Your task to perform on an android device: turn off airplane mode Image 0: 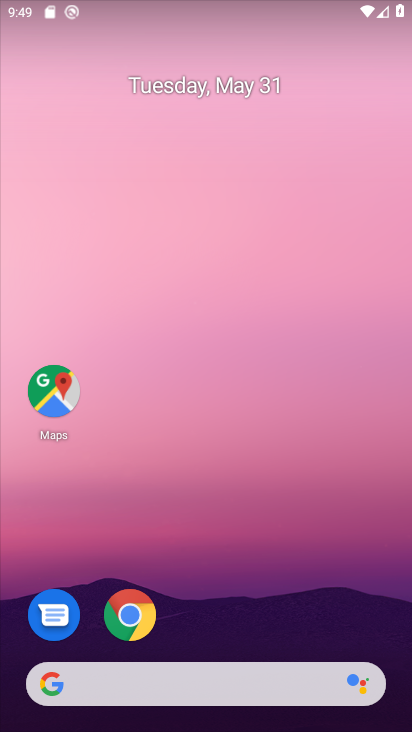
Step 0: drag from (276, 367) to (313, 62)
Your task to perform on an android device: turn off airplane mode Image 1: 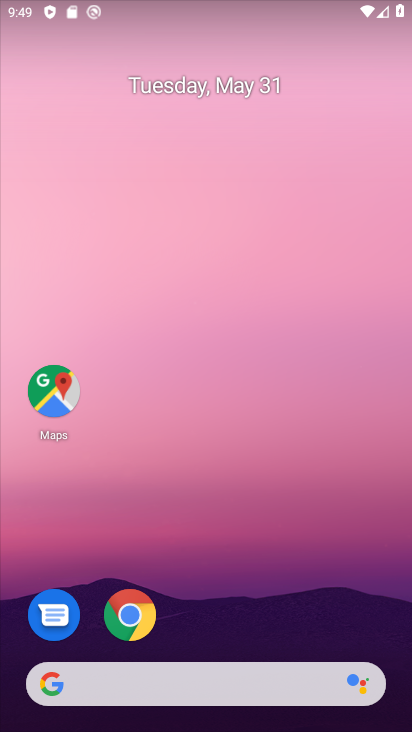
Step 1: drag from (207, 641) to (316, 23)
Your task to perform on an android device: turn off airplane mode Image 2: 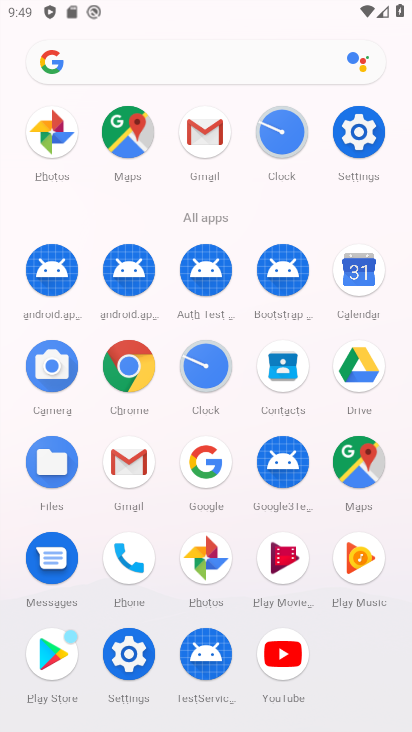
Step 2: drag from (207, 562) to (260, 301)
Your task to perform on an android device: turn off airplane mode Image 3: 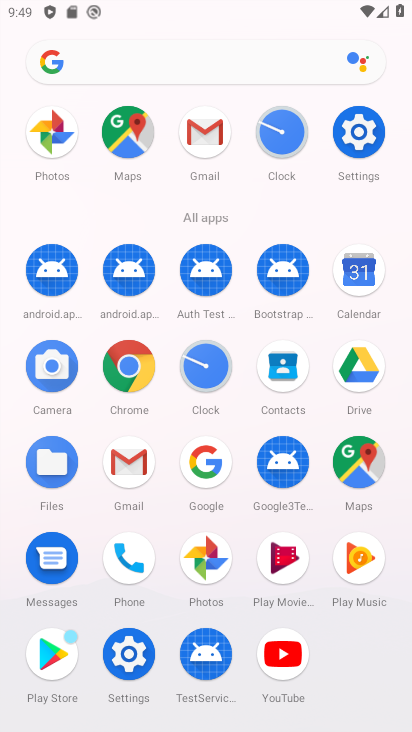
Step 3: click (133, 652)
Your task to perform on an android device: turn off airplane mode Image 4: 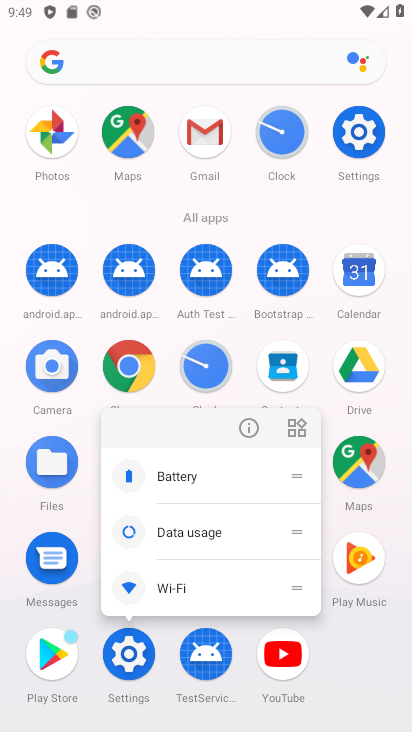
Step 4: click (110, 678)
Your task to perform on an android device: turn off airplane mode Image 5: 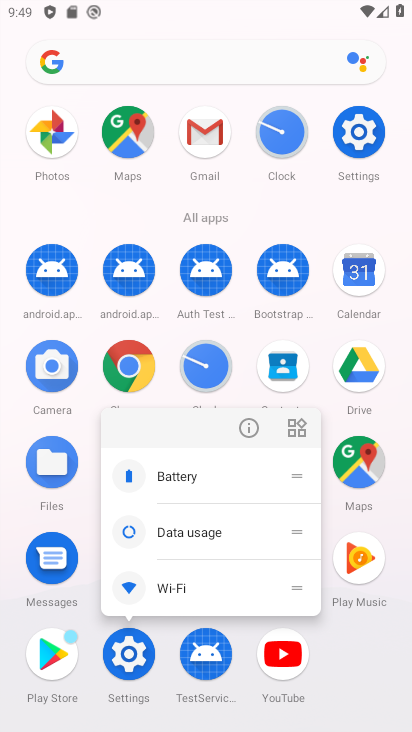
Step 5: click (124, 664)
Your task to perform on an android device: turn off airplane mode Image 6: 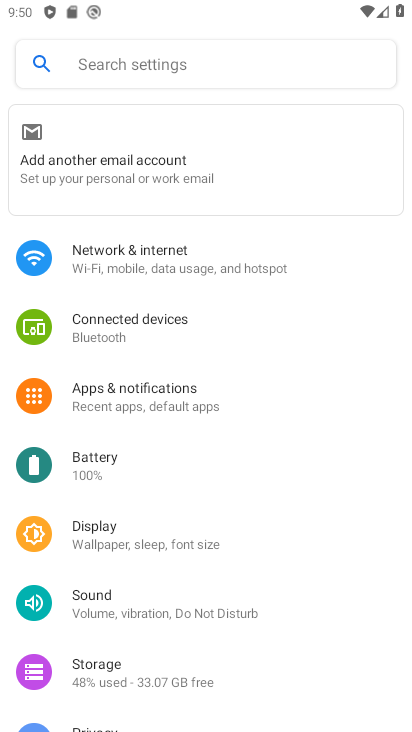
Step 6: click (194, 270)
Your task to perform on an android device: turn off airplane mode Image 7: 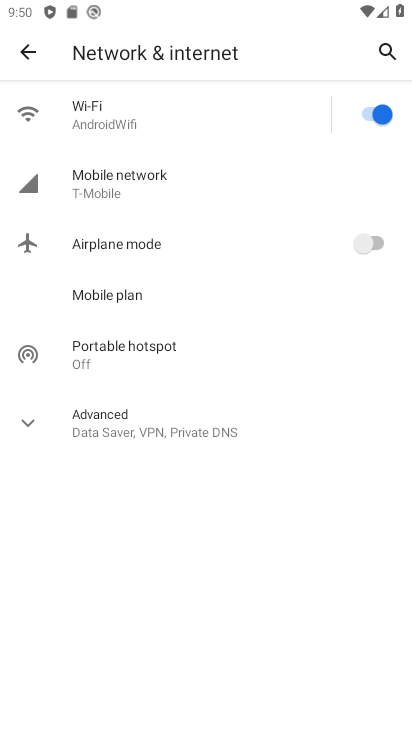
Step 7: task complete